Your task to perform on an android device: What's on my calendar tomorrow? Image 0: 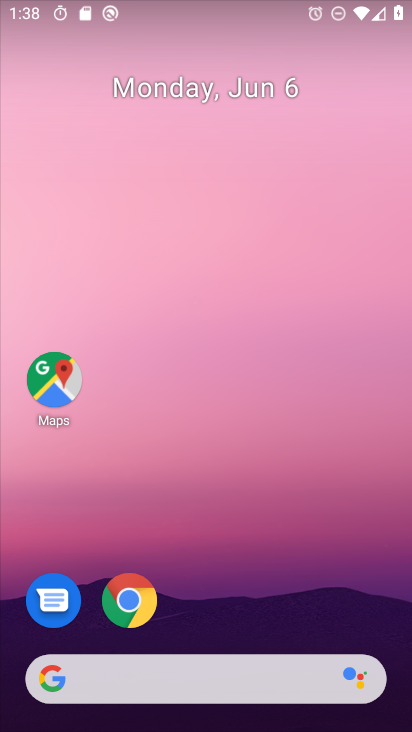
Step 0: drag from (215, 630) to (219, 215)
Your task to perform on an android device: What's on my calendar tomorrow? Image 1: 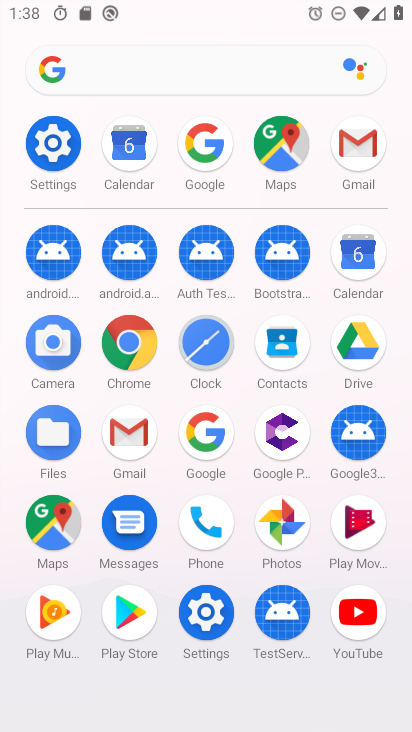
Step 1: click (370, 246)
Your task to perform on an android device: What's on my calendar tomorrow? Image 2: 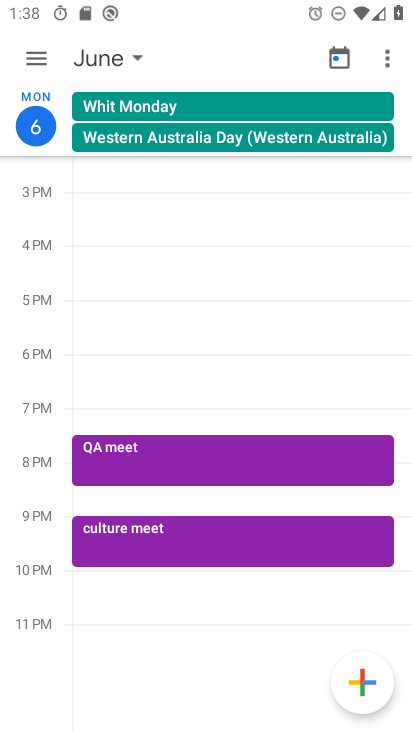
Step 2: click (128, 65)
Your task to perform on an android device: What's on my calendar tomorrow? Image 3: 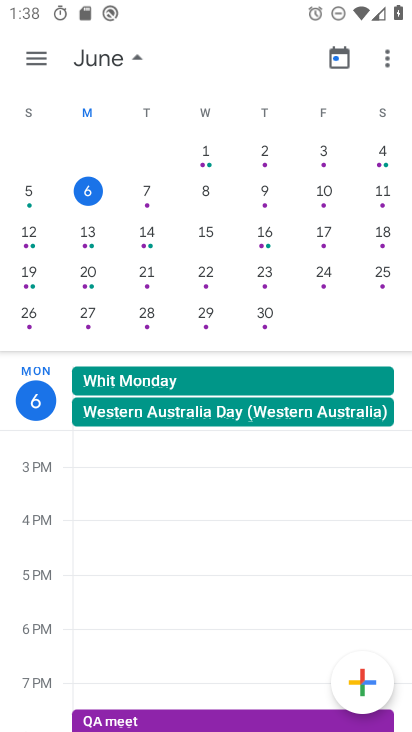
Step 3: click (147, 191)
Your task to perform on an android device: What's on my calendar tomorrow? Image 4: 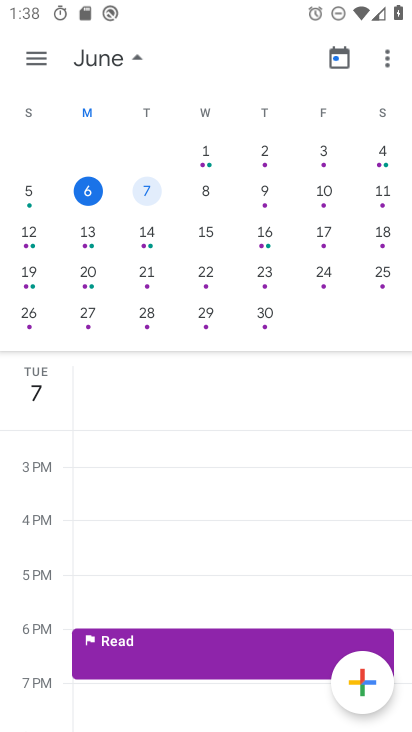
Step 4: task complete